Your task to perform on an android device: open app "Google Home" (install if not already installed) Image 0: 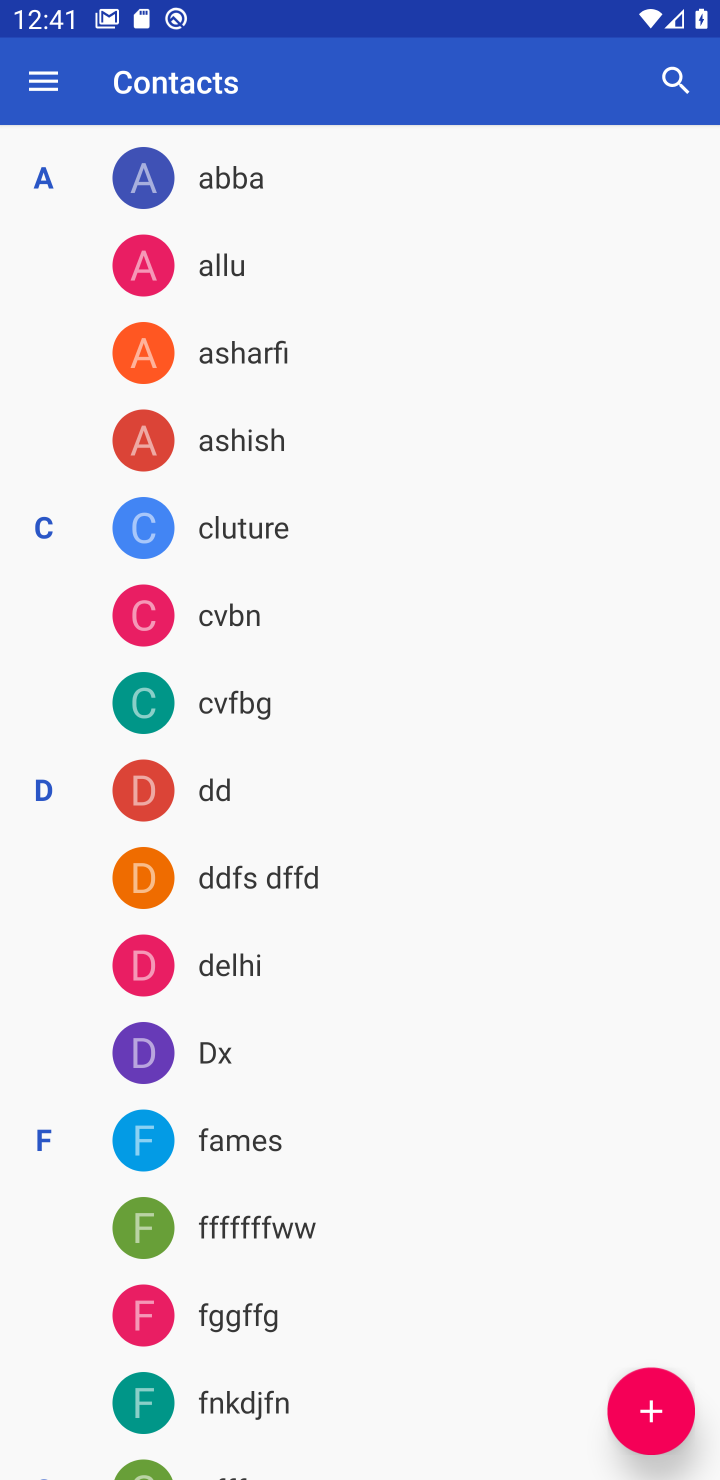
Step 0: press home button
Your task to perform on an android device: open app "Google Home" (install if not already installed) Image 1: 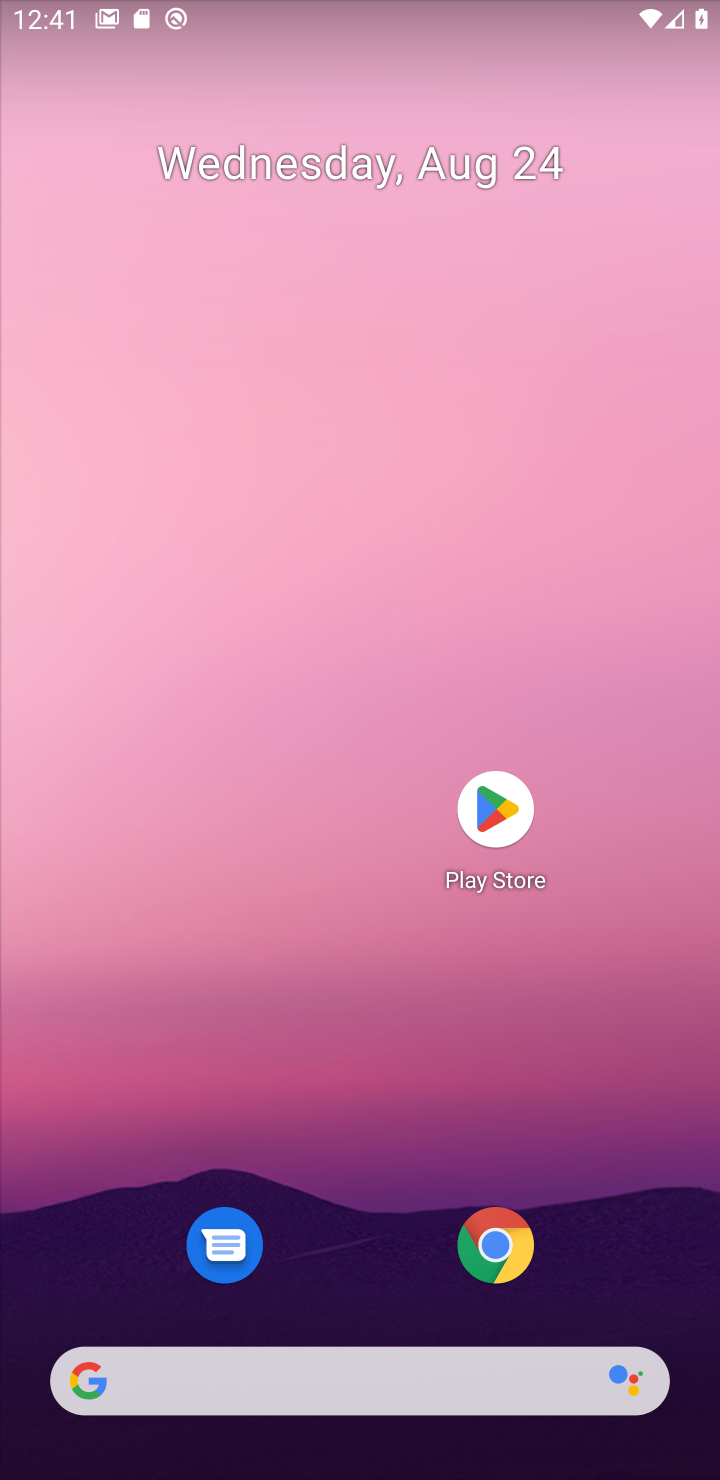
Step 1: click (495, 795)
Your task to perform on an android device: open app "Google Home" (install if not already installed) Image 2: 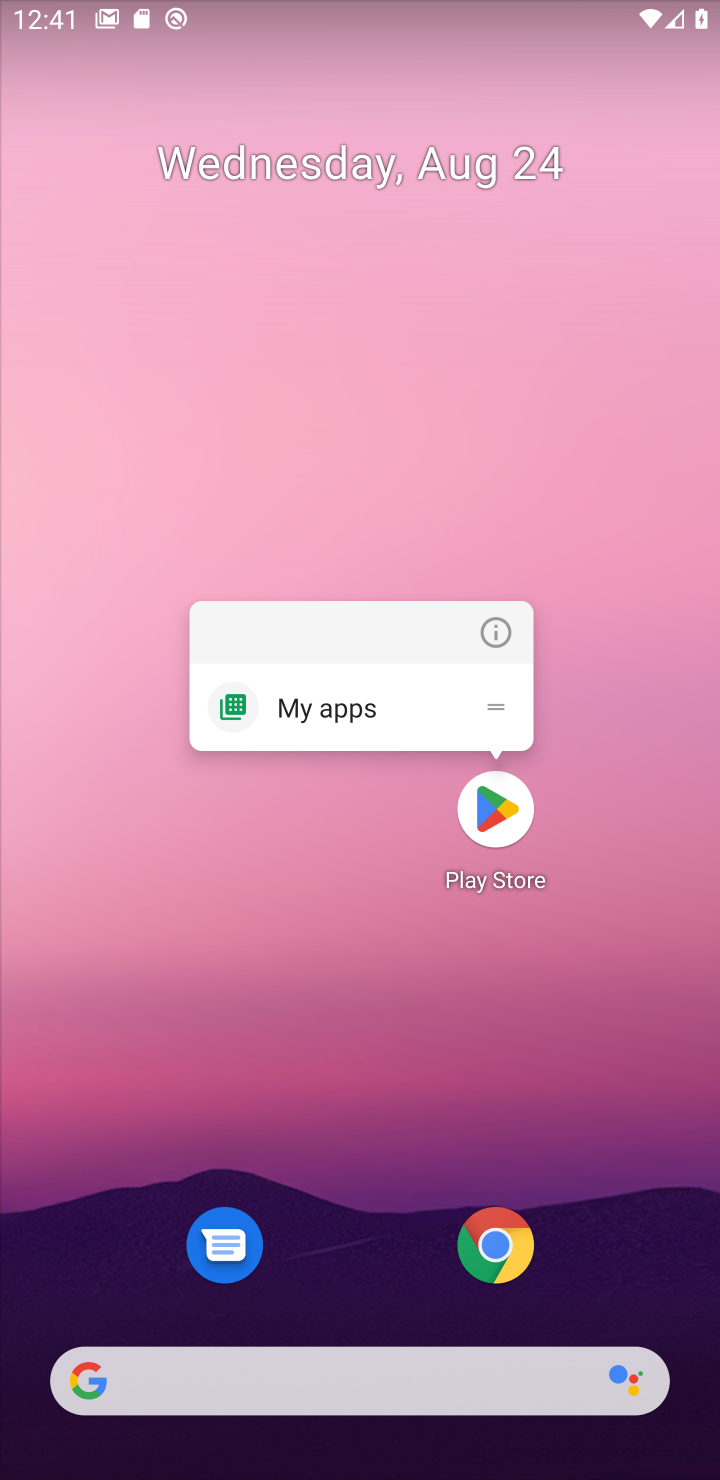
Step 2: click (485, 805)
Your task to perform on an android device: open app "Google Home" (install if not already installed) Image 3: 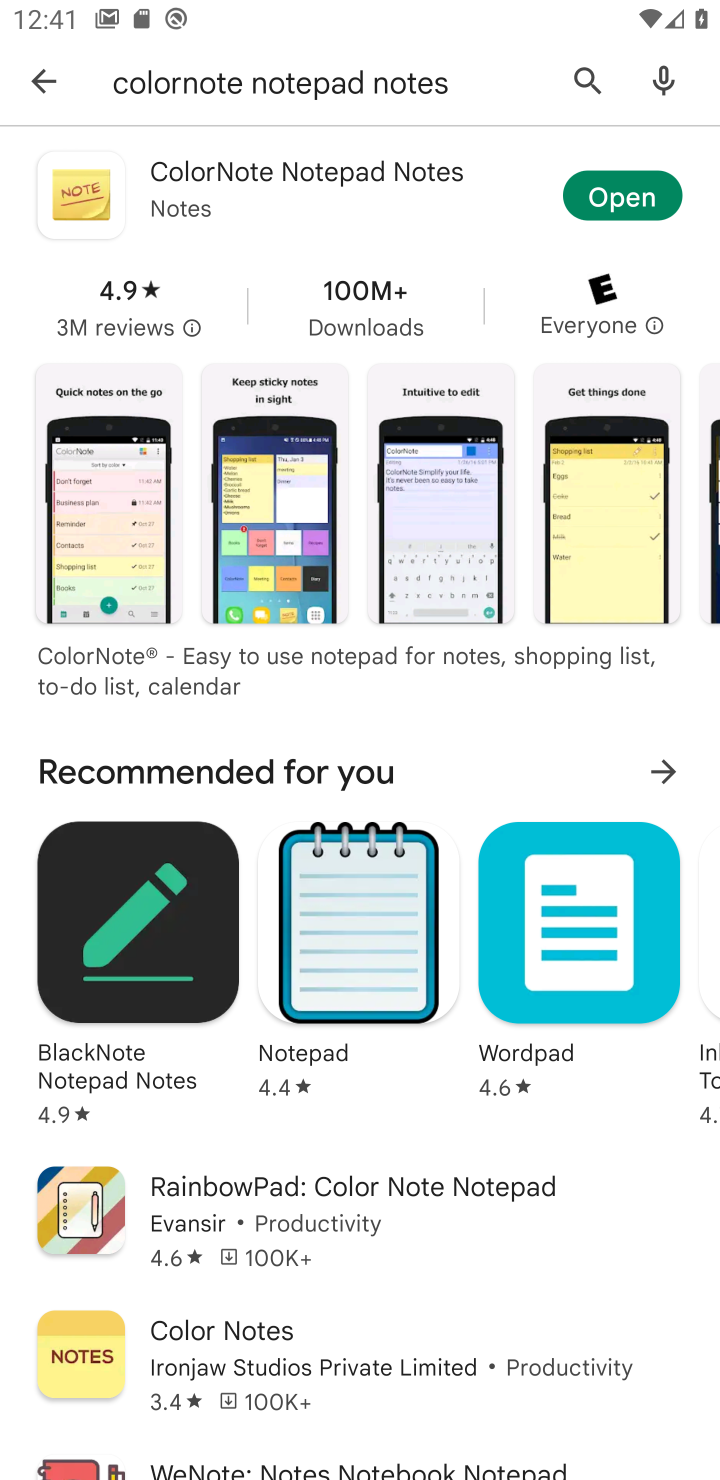
Step 3: click (579, 67)
Your task to perform on an android device: open app "Google Home" (install if not already installed) Image 4: 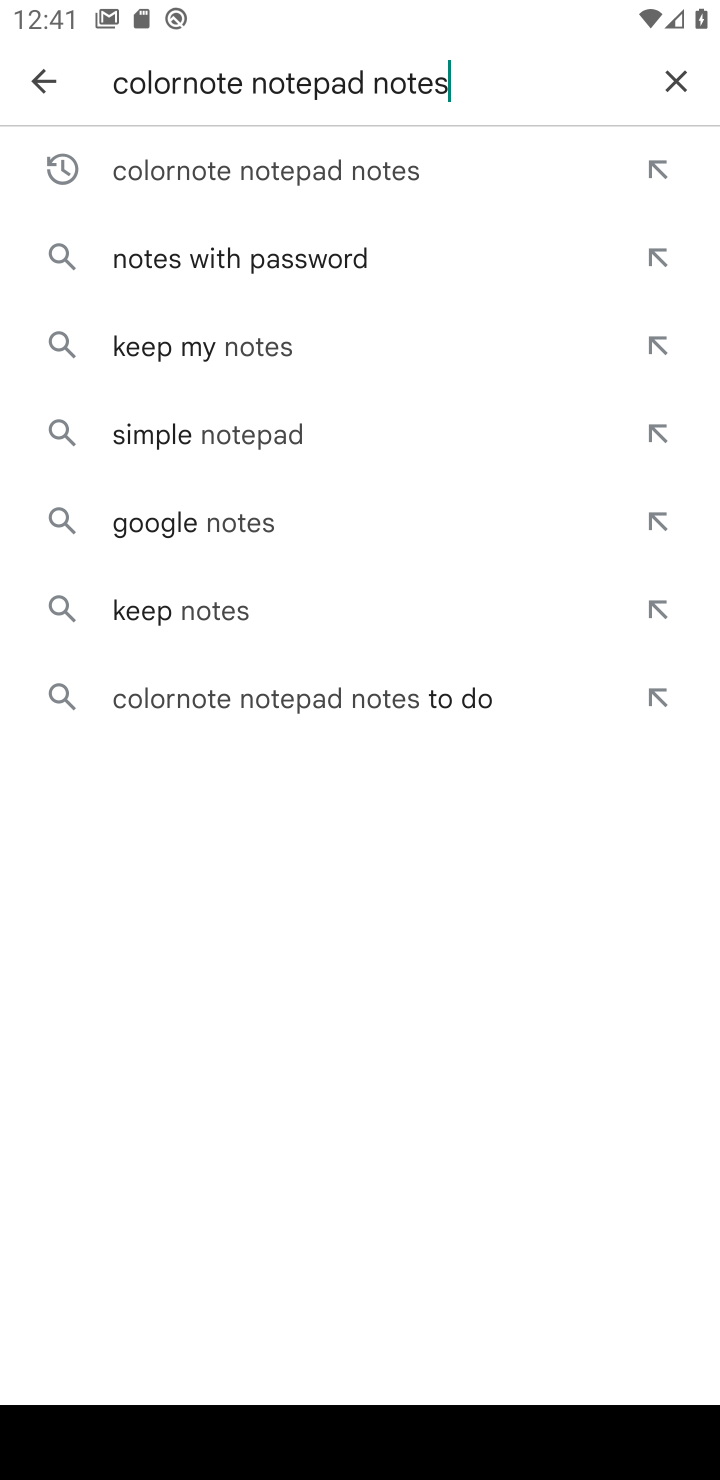
Step 4: click (672, 63)
Your task to perform on an android device: open app "Google Home" (install if not already installed) Image 5: 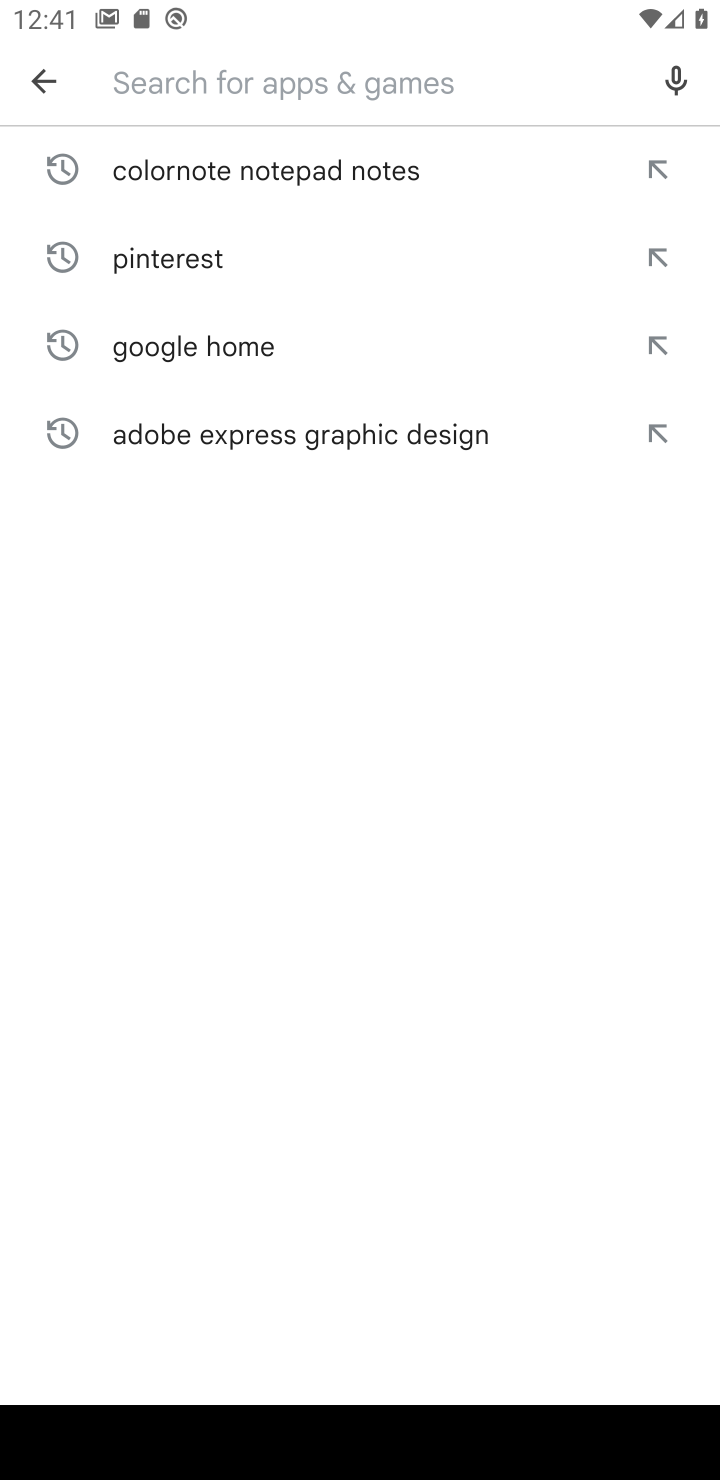
Step 5: type "Google Home"
Your task to perform on an android device: open app "Google Home" (install if not already installed) Image 6: 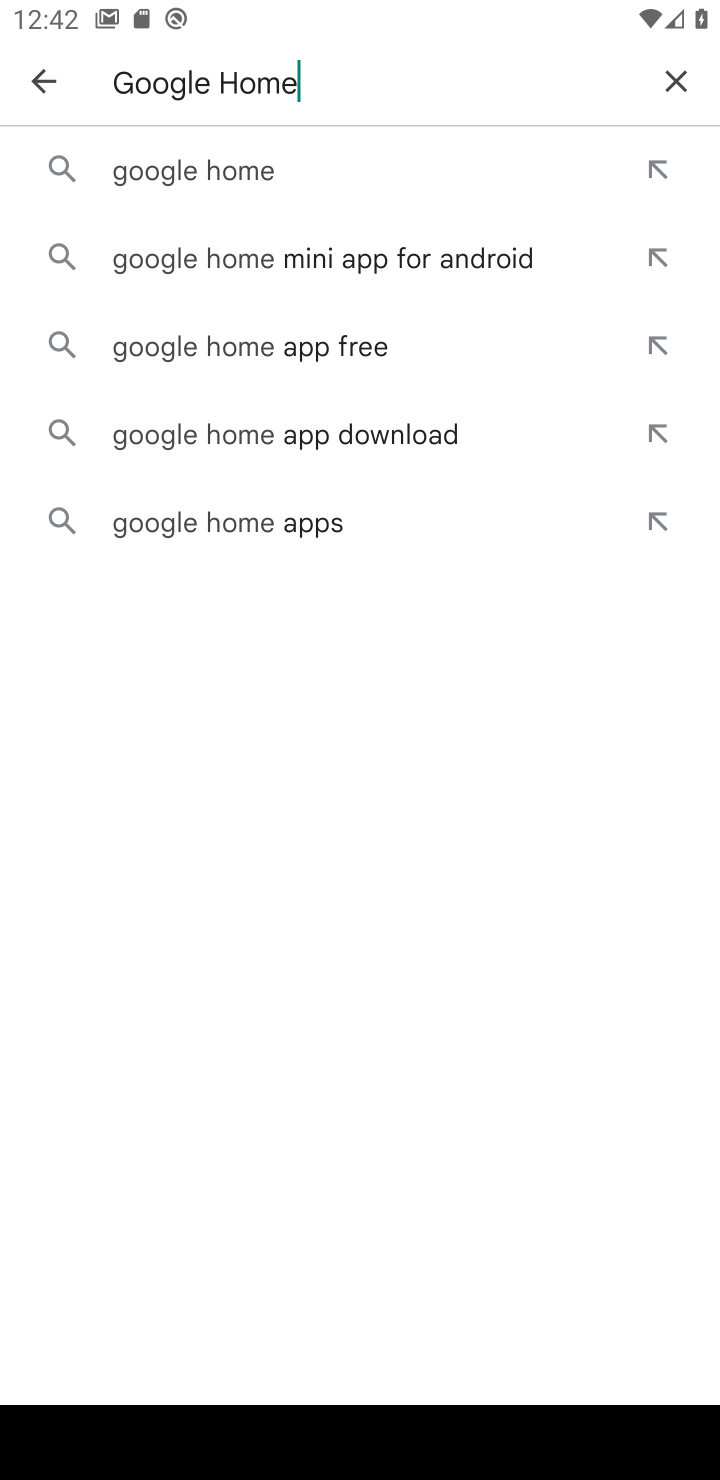
Step 6: click (154, 170)
Your task to perform on an android device: open app "Google Home" (install if not already installed) Image 7: 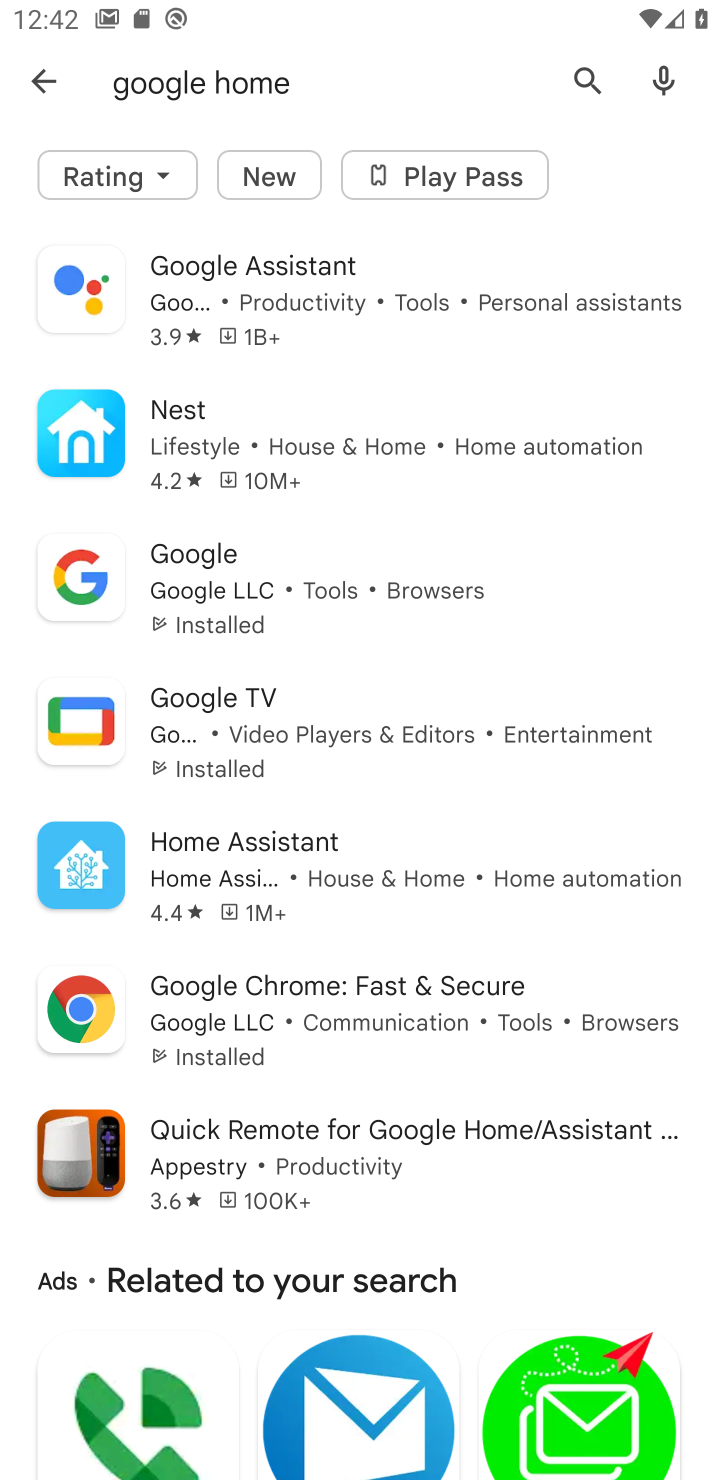
Step 7: task complete